Your task to perform on an android device: Open settings Image 0: 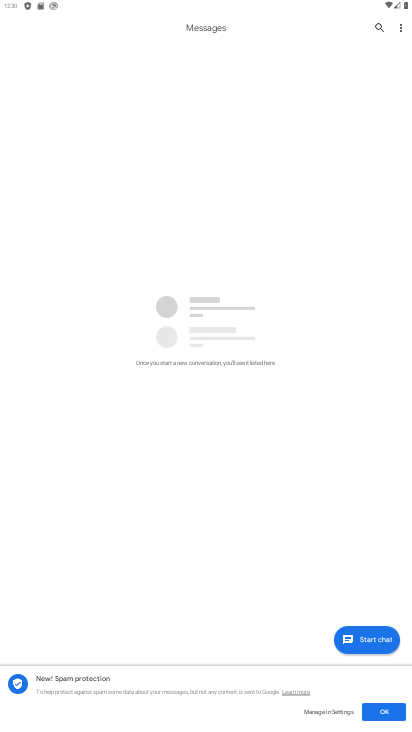
Step 0: press home button
Your task to perform on an android device: Open settings Image 1: 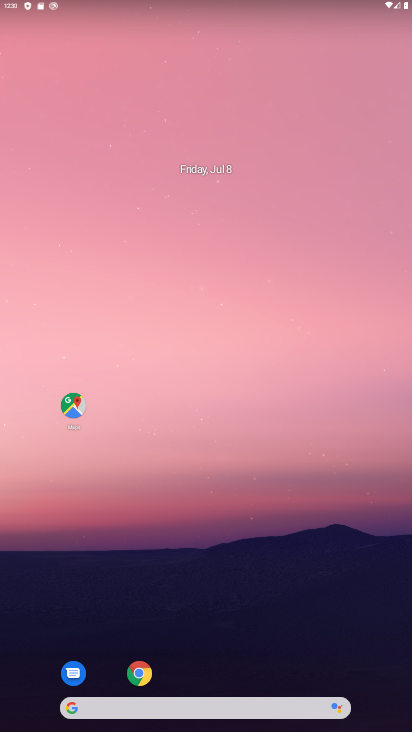
Step 1: drag from (214, 670) to (259, 111)
Your task to perform on an android device: Open settings Image 2: 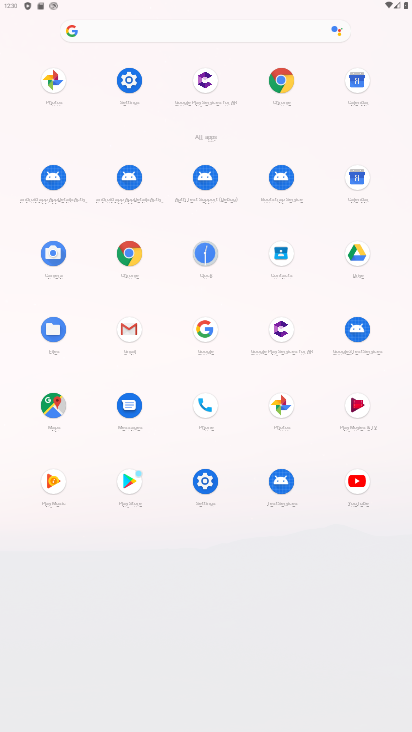
Step 2: click (123, 72)
Your task to perform on an android device: Open settings Image 3: 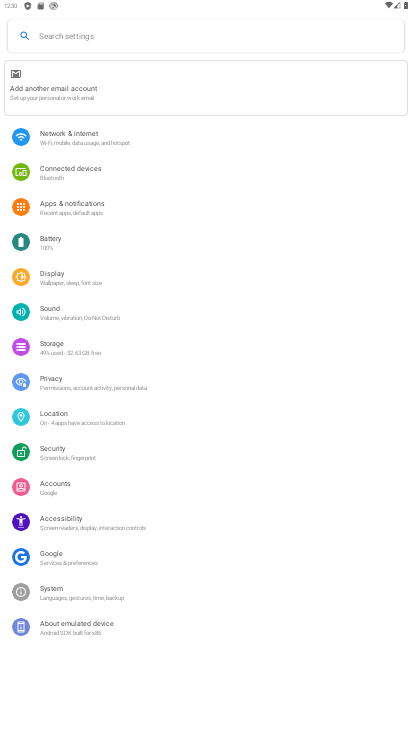
Step 3: task complete